Your task to perform on an android device: toggle data saver in the chrome app Image 0: 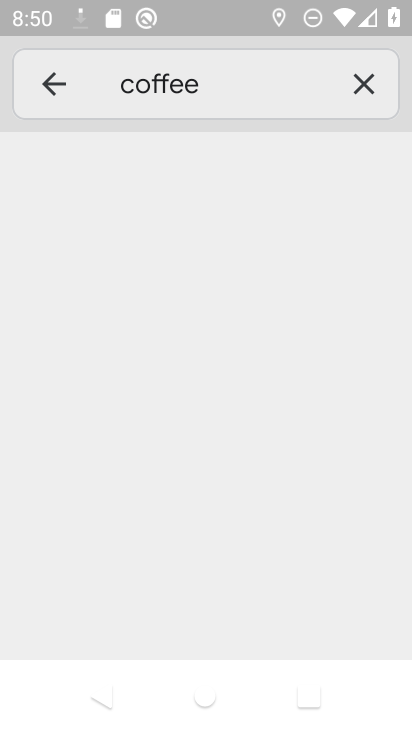
Step 0: press home button
Your task to perform on an android device: toggle data saver in the chrome app Image 1: 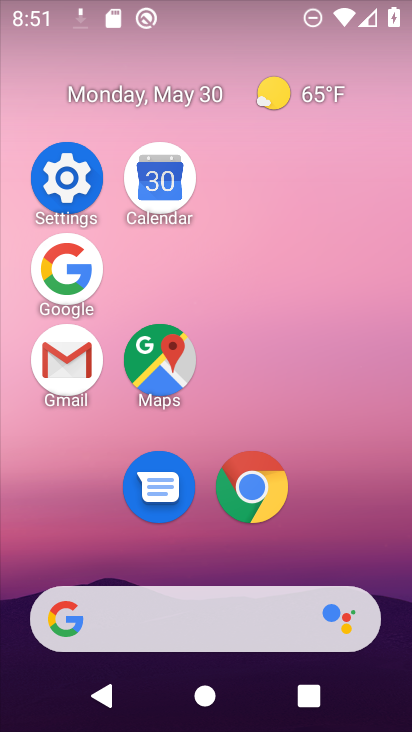
Step 1: click (247, 488)
Your task to perform on an android device: toggle data saver in the chrome app Image 2: 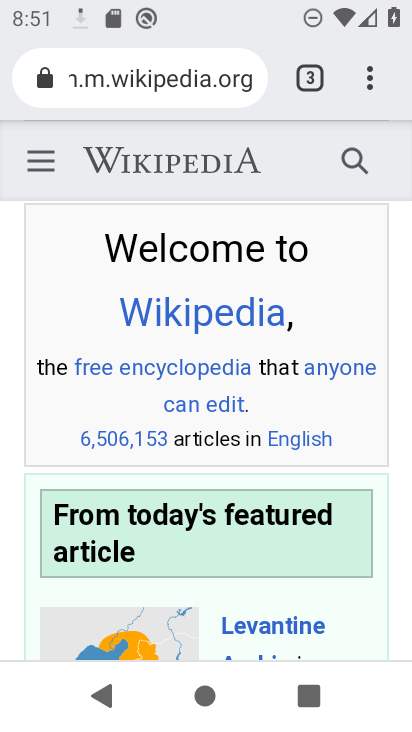
Step 2: click (367, 68)
Your task to perform on an android device: toggle data saver in the chrome app Image 3: 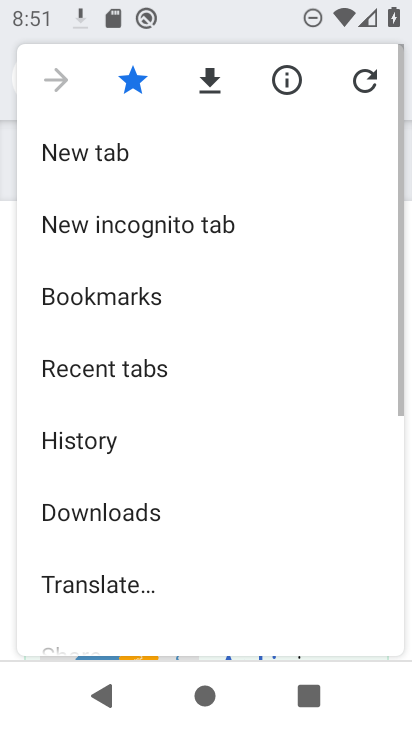
Step 3: drag from (270, 551) to (283, 84)
Your task to perform on an android device: toggle data saver in the chrome app Image 4: 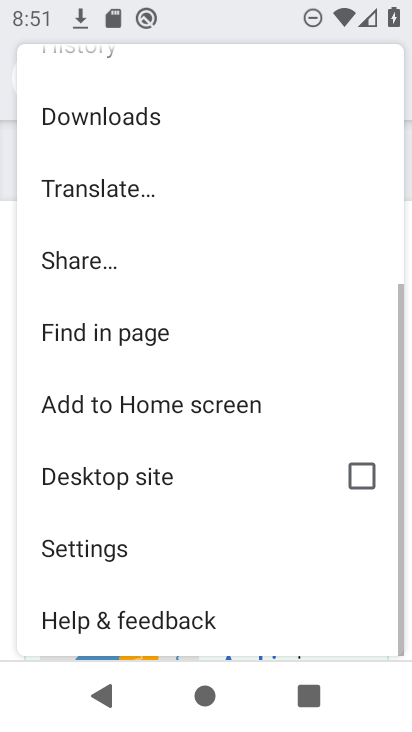
Step 4: click (158, 553)
Your task to perform on an android device: toggle data saver in the chrome app Image 5: 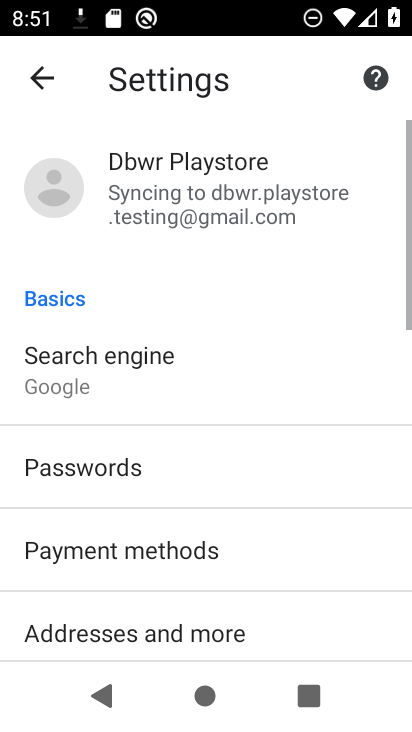
Step 5: drag from (149, 203) to (147, 142)
Your task to perform on an android device: toggle data saver in the chrome app Image 6: 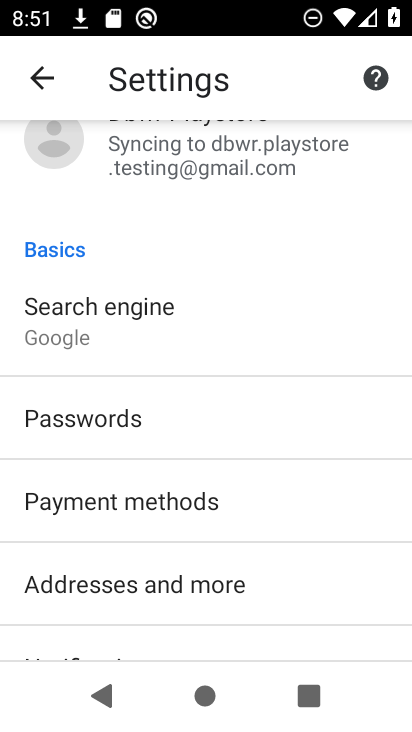
Step 6: drag from (203, 566) to (240, 165)
Your task to perform on an android device: toggle data saver in the chrome app Image 7: 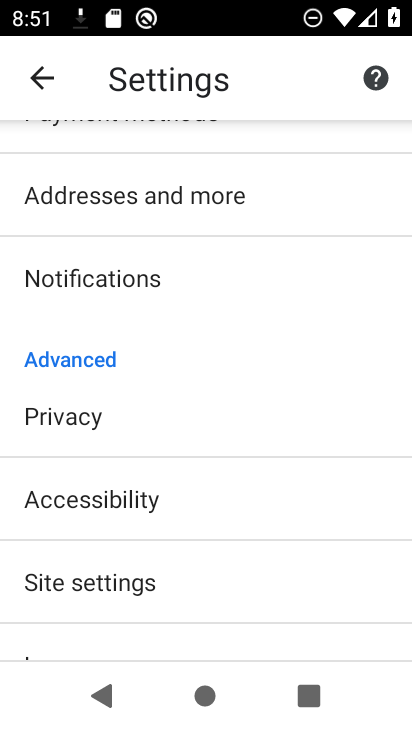
Step 7: drag from (211, 561) to (224, 152)
Your task to perform on an android device: toggle data saver in the chrome app Image 8: 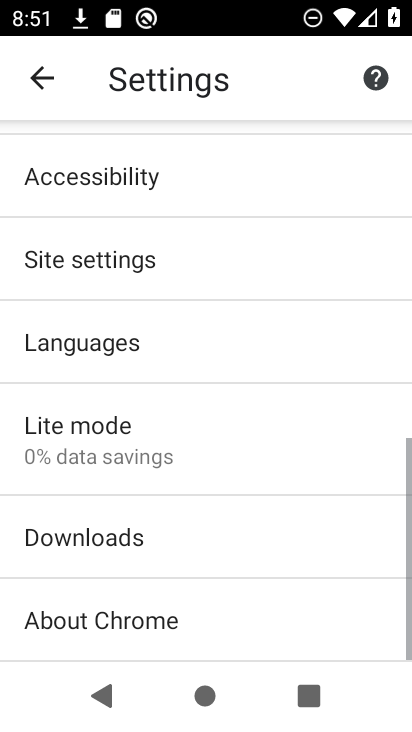
Step 8: click (203, 477)
Your task to perform on an android device: toggle data saver in the chrome app Image 9: 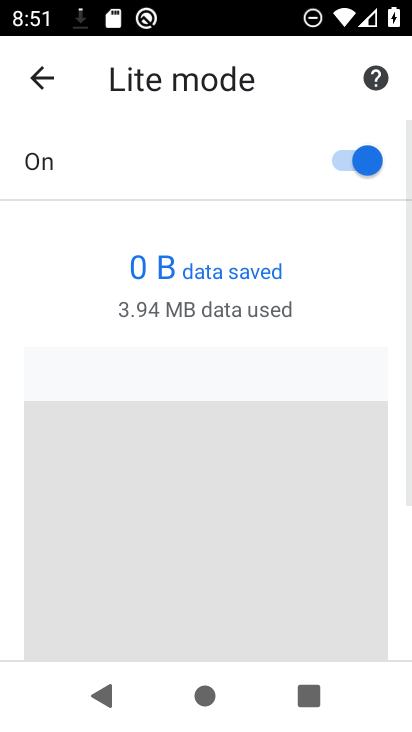
Step 9: click (345, 164)
Your task to perform on an android device: toggle data saver in the chrome app Image 10: 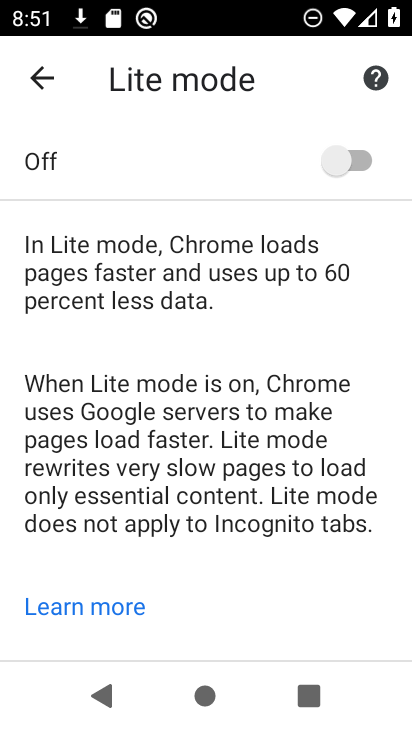
Step 10: task complete